Your task to perform on an android device: Open CNN.com Image 0: 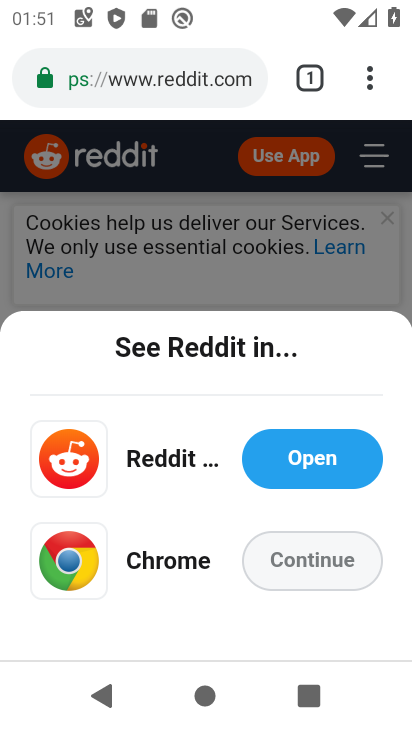
Step 0: click (286, 553)
Your task to perform on an android device: Open CNN.com Image 1: 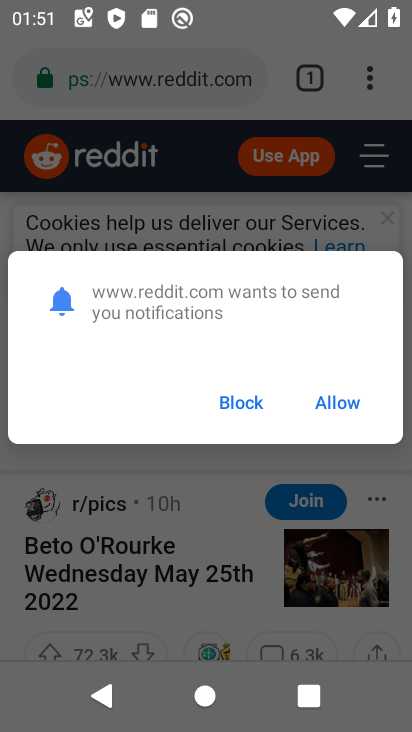
Step 1: click (331, 412)
Your task to perform on an android device: Open CNN.com Image 2: 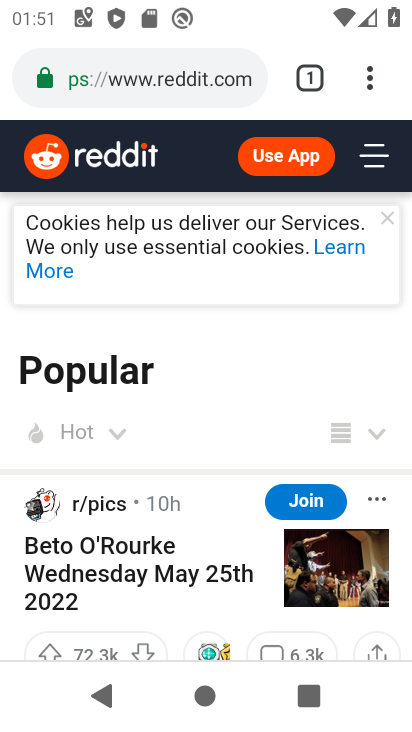
Step 2: click (208, 74)
Your task to perform on an android device: Open CNN.com Image 3: 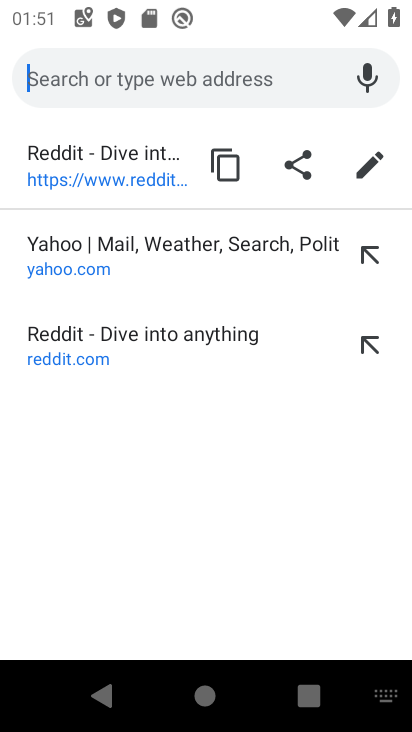
Step 3: type "cnn.com"
Your task to perform on an android device: Open CNN.com Image 4: 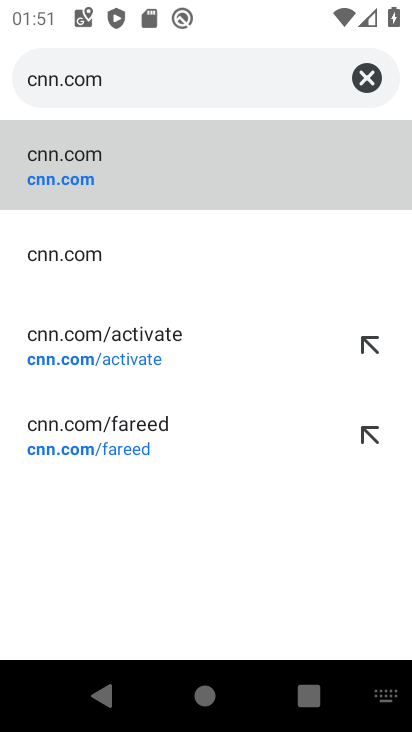
Step 4: click (100, 163)
Your task to perform on an android device: Open CNN.com Image 5: 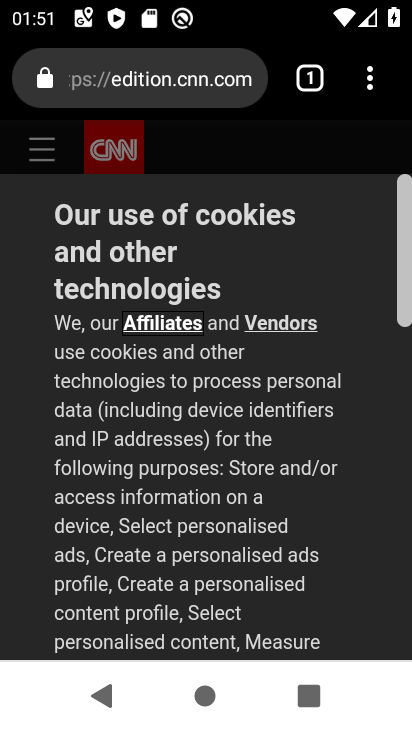
Step 5: task complete